Your task to perform on an android device: find which apps use the phone's location Image 0: 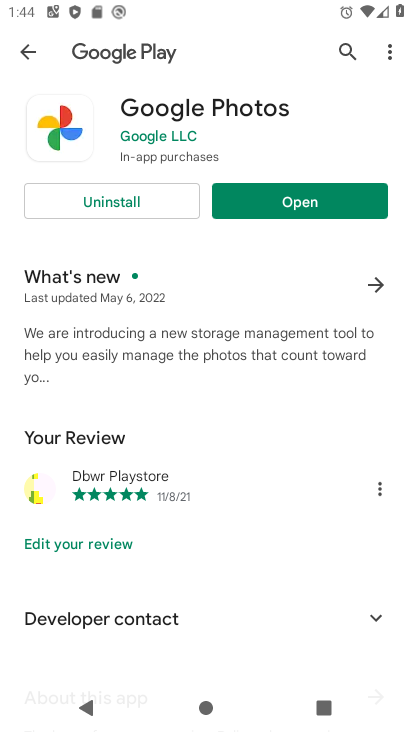
Step 0: press home button
Your task to perform on an android device: find which apps use the phone's location Image 1: 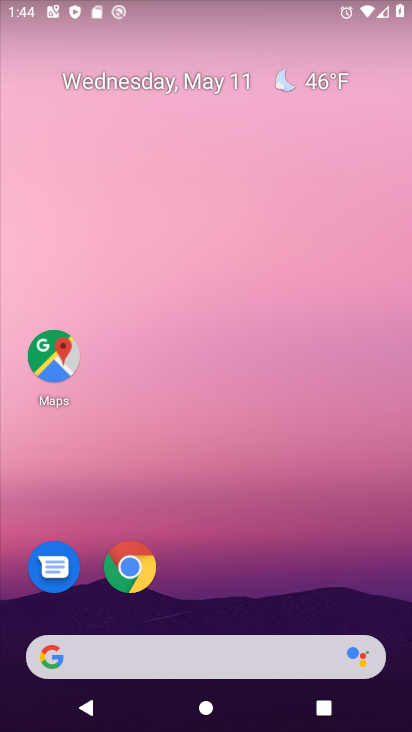
Step 1: drag from (226, 609) to (203, 22)
Your task to perform on an android device: find which apps use the phone's location Image 2: 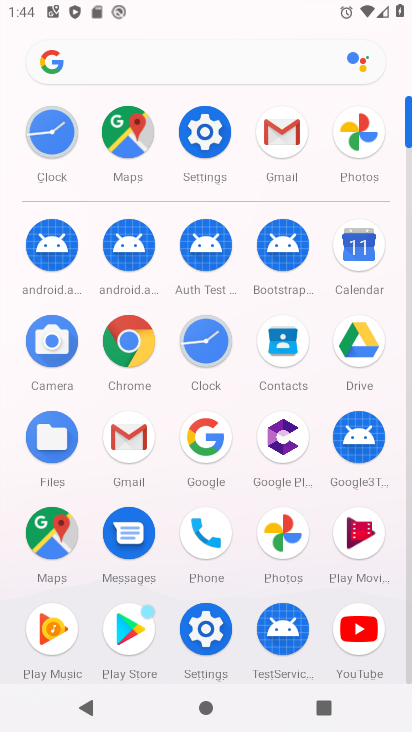
Step 2: click (203, 126)
Your task to perform on an android device: find which apps use the phone's location Image 3: 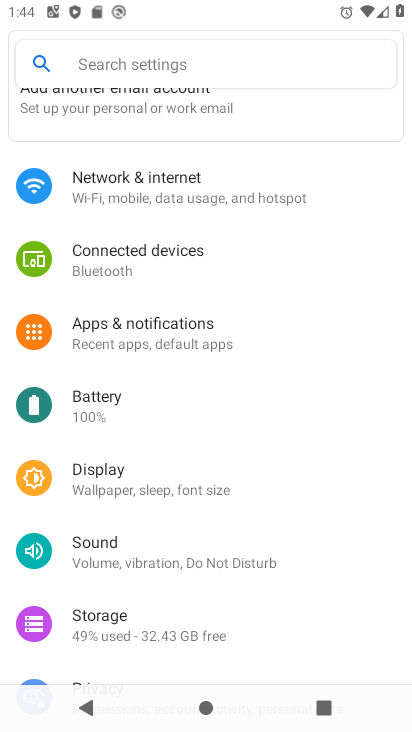
Step 3: drag from (137, 568) to (109, 258)
Your task to perform on an android device: find which apps use the phone's location Image 4: 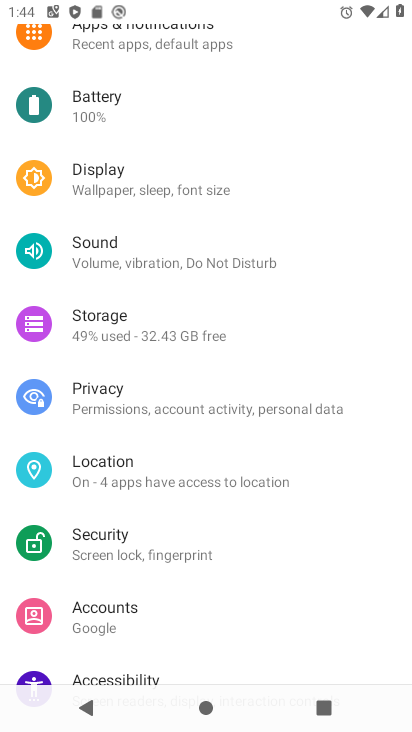
Step 4: click (107, 473)
Your task to perform on an android device: find which apps use the phone's location Image 5: 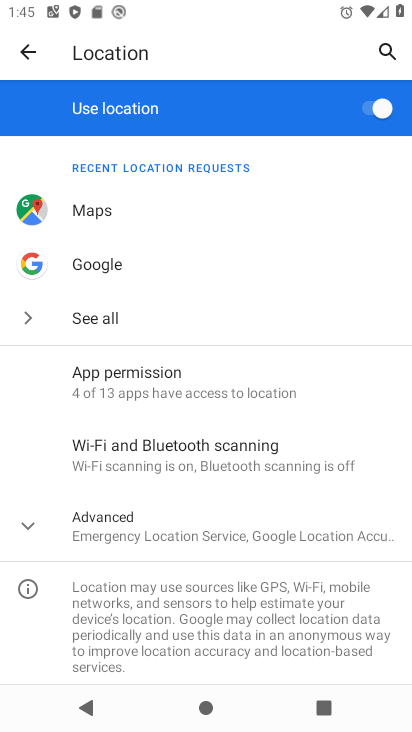
Step 5: click (194, 389)
Your task to perform on an android device: find which apps use the phone's location Image 6: 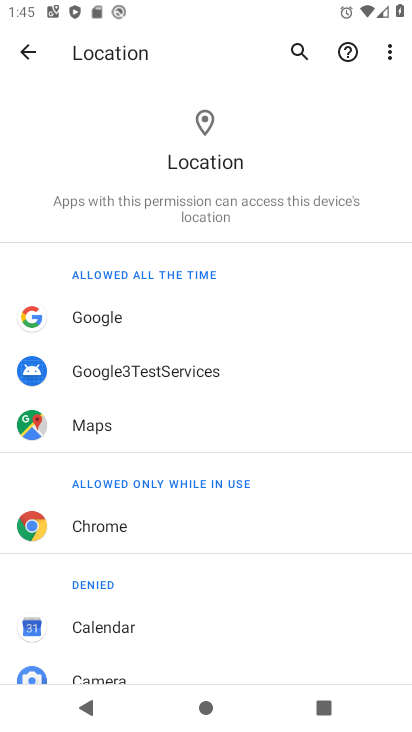
Step 6: task complete